Your task to perform on an android device: Search for pizza restaurants on Maps Image 0: 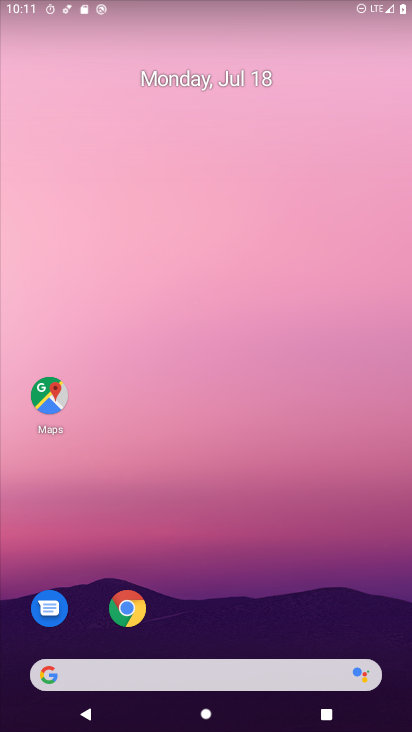
Step 0: drag from (365, 457) to (365, 194)
Your task to perform on an android device: Search for pizza restaurants on Maps Image 1: 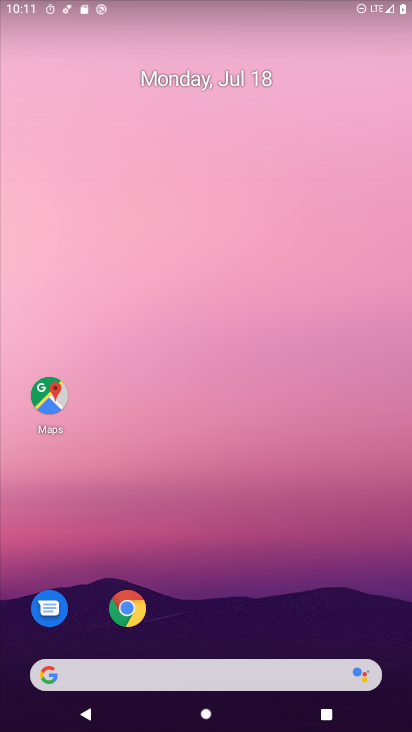
Step 1: click (41, 402)
Your task to perform on an android device: Search for pizza restaurants on Maps Image 2: 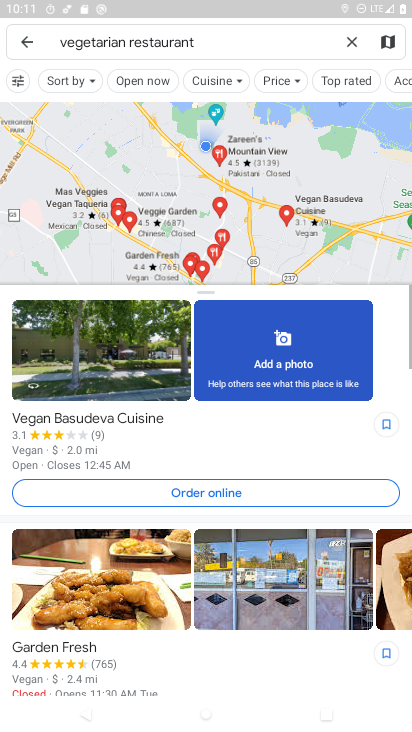
Step 2: click (348, 36)
Your task to perform on an android device: Search for pizza restaurants on Maps Image 3: 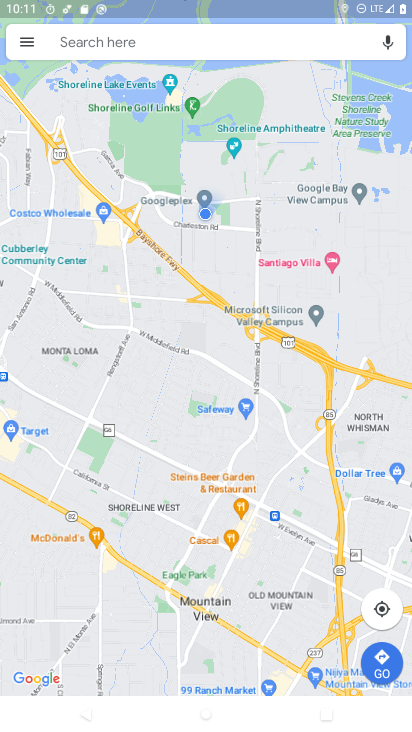
Step 3: click (190, 33)
Your task to perform on an android device: Search for pizza restaurants on Maps Image 4: 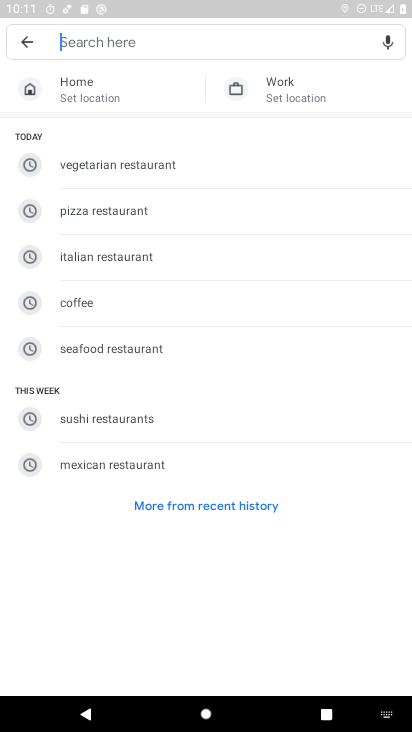
Step 4: click (114, 210)
Your task to perform on an android device: Search for pizza restaurants on Maps Image 5: 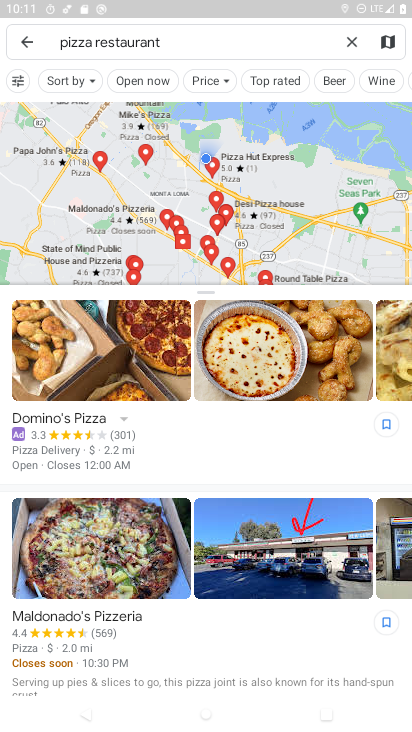
Step 5: task complete